Your task to perform on an android device: Open Chrome and go to settings Image 0: 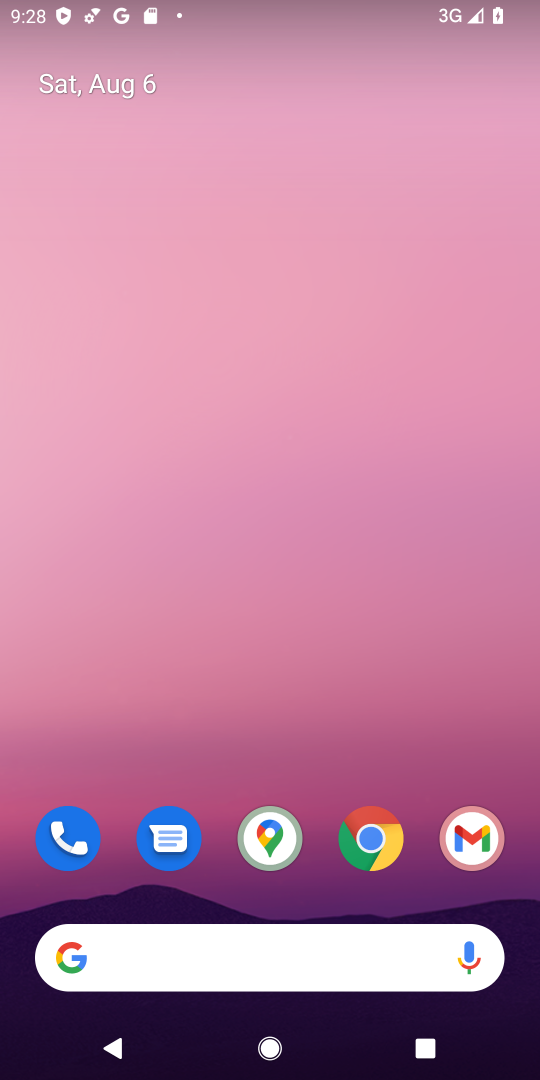
Step 0: click (375, 828)
Your task to perform on an android device: Open Chrome and go to settings Image 1: 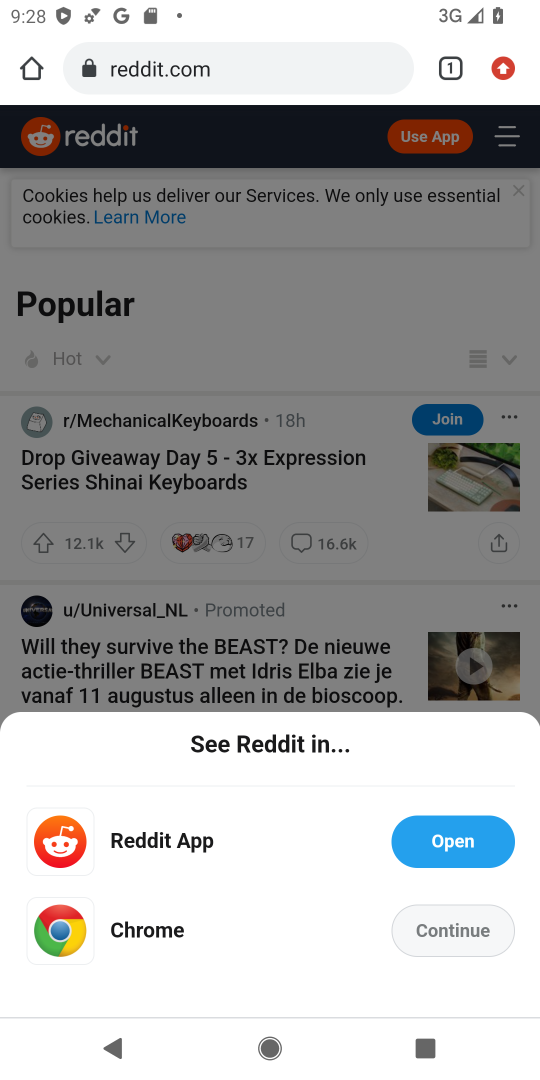
Step 1: click (465, 935)
Your task to perform on an android device: Open Chrome and go to settings Image 2: 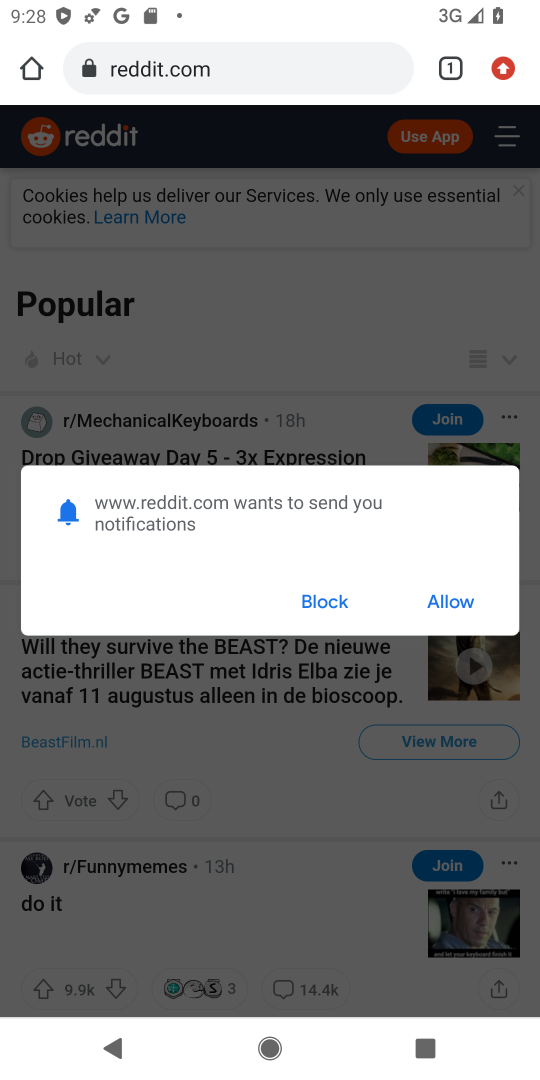
Step 2: click (515, 80)
Your task to perform on an android device: Open Chrome and go to settings Image 3: 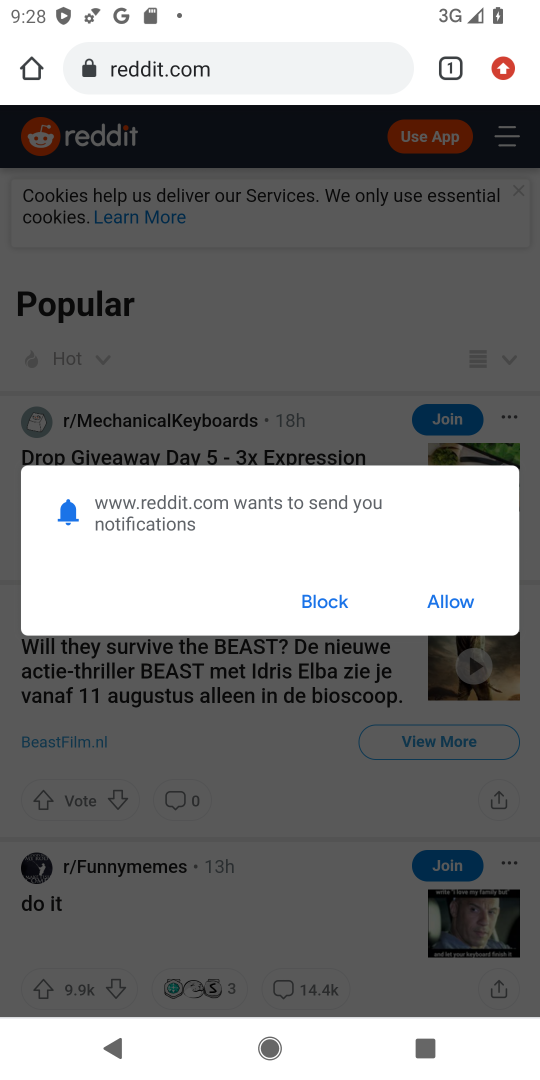
Step 3: click (496, 57)
Your task to perform on an android device: Open Chrome and go to settings Image 4: 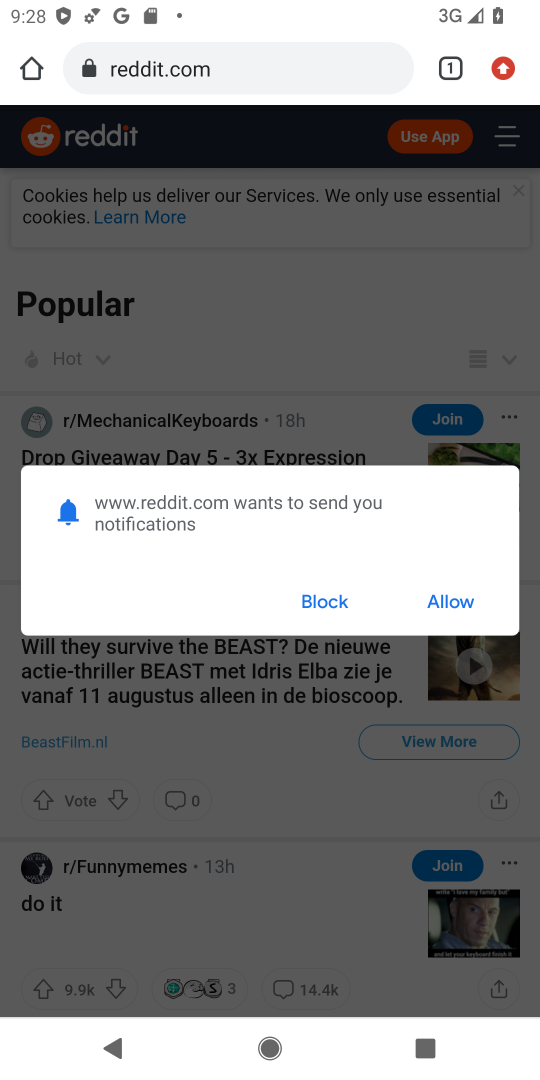
Step 4: click (343, 591)
Your task to perform on an android device: Open Chrome and go to settings Image 5: 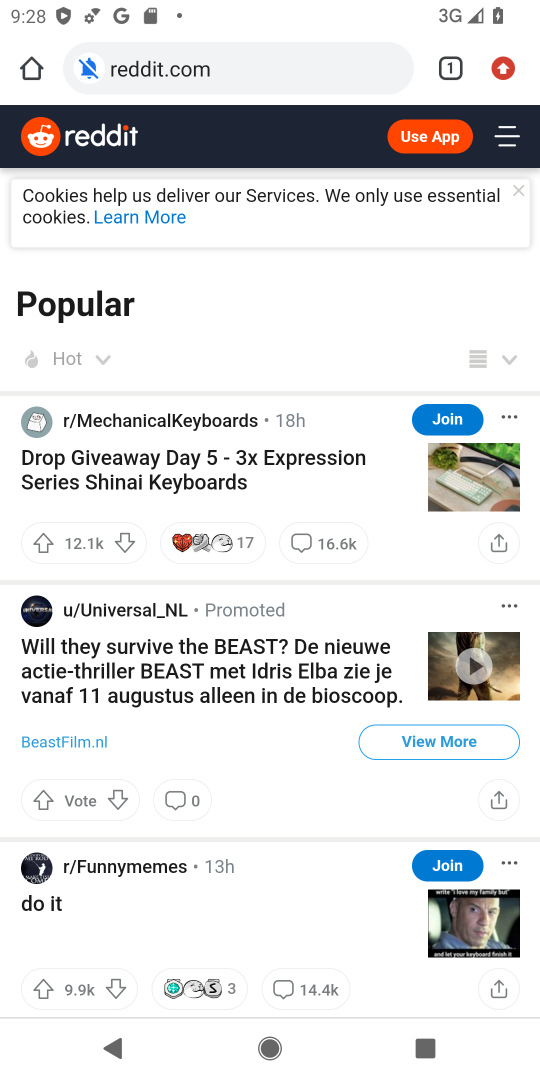
Step 5: click (507, 57)
Your task to perform on an android device: Open Chrome and go to settings Image 6: 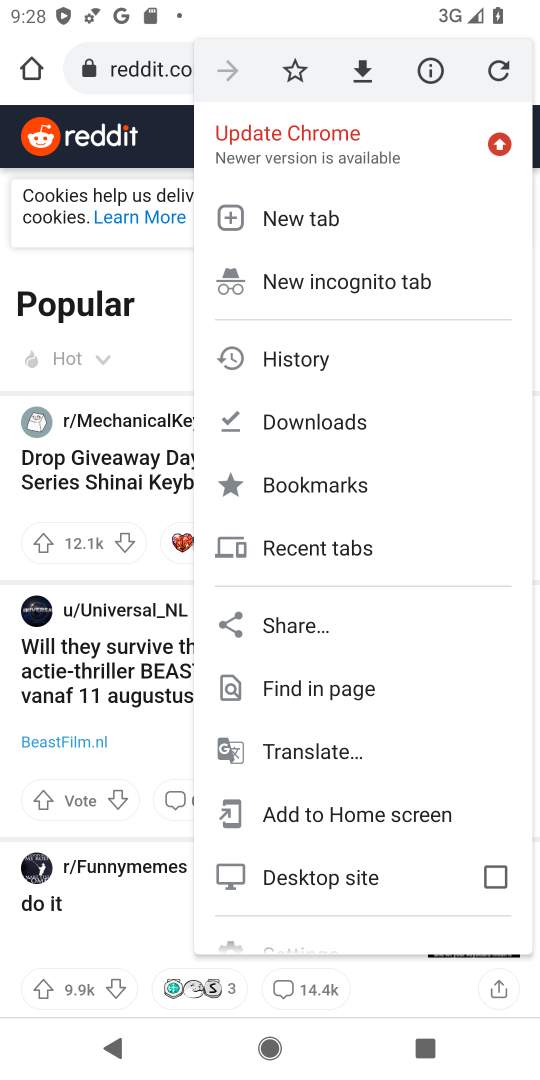
Step 6: drag from (404, 818) to (358, 526)
Your task to perform on an android device: Open Chrome and go to settings Image 7: 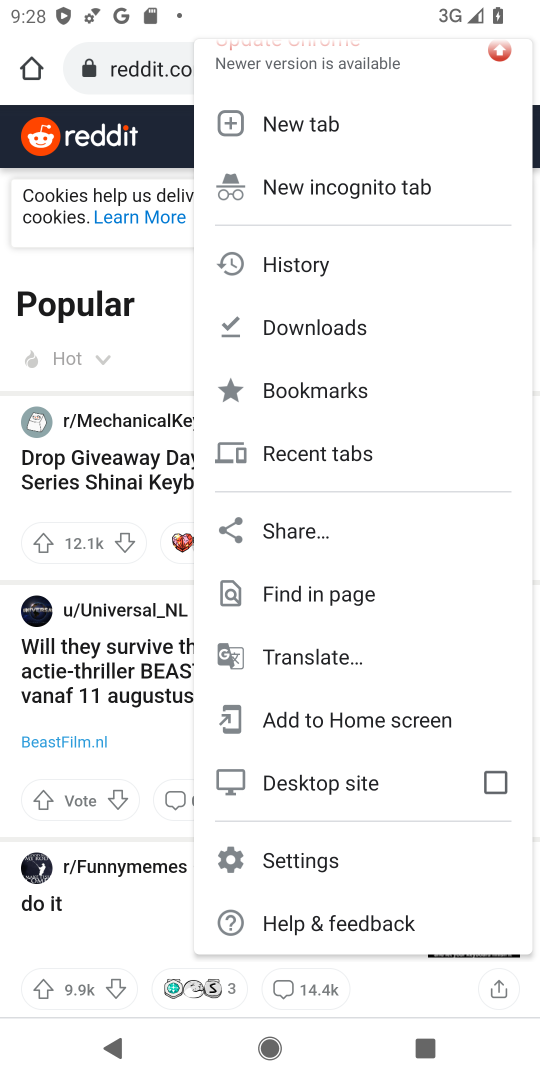
Step 7: click (358, 852)
Your task to perform on an android device: Open Chrome and go to settings Image 8: 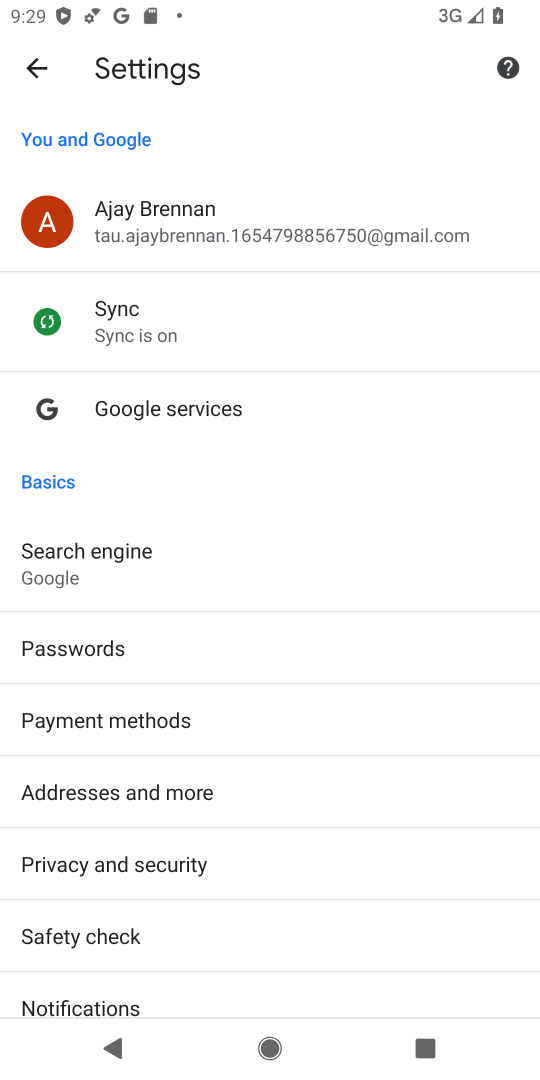
Step 8: task complete